Your task to perform on an android device: turn off notifications in google photos Image 0: 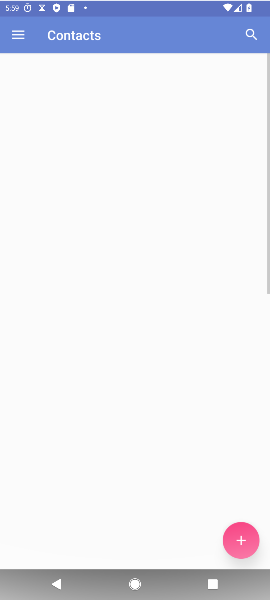
Step 0: press home button
Your task to perform on an android device: turn off notifications in google photos Image 1: 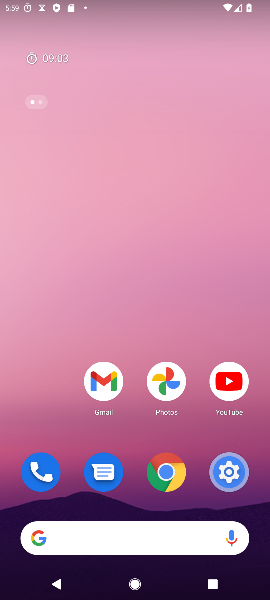
Step 1: click (163, 378)
Your task to perform on an android device: turn off notifications in google photos Image 2: 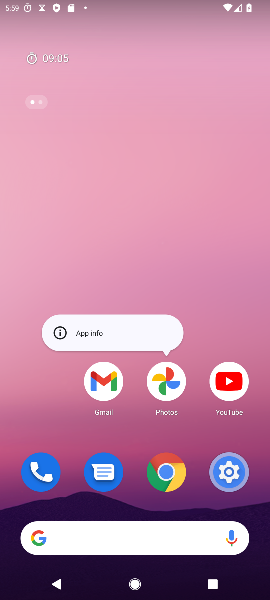
Step 2: click (163, 378)
Your task to perform on an android device: turn off notifications in google photos Image 3: 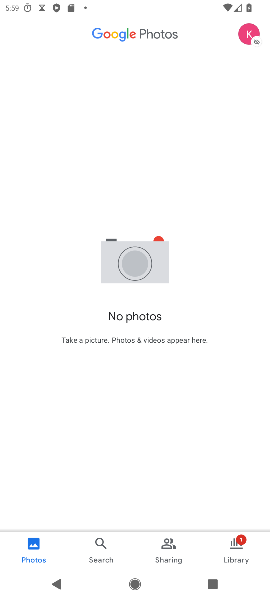
Step 3: click (250, 35)
Your task to perform on an android device: turn off notifications in google photos Image 4: 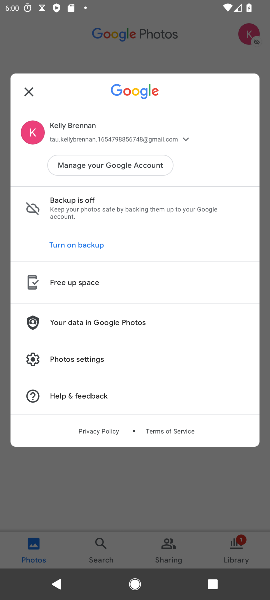
Step 4: click (82, 355)
Your task to perform on an android device: turn off notifications in google photos Image 5: 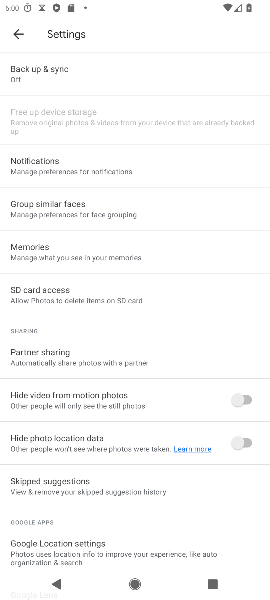
Step 5: click (39, 165)
Your task to perform on an android device: turn off notifications in google photos Image 6: 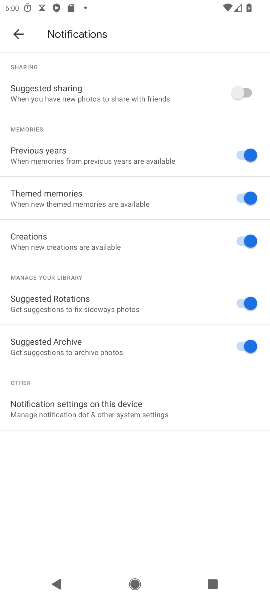
Step 6: task complete